Your task to perform on an android device: see tabs open on other devices in the chrome app Image 0: 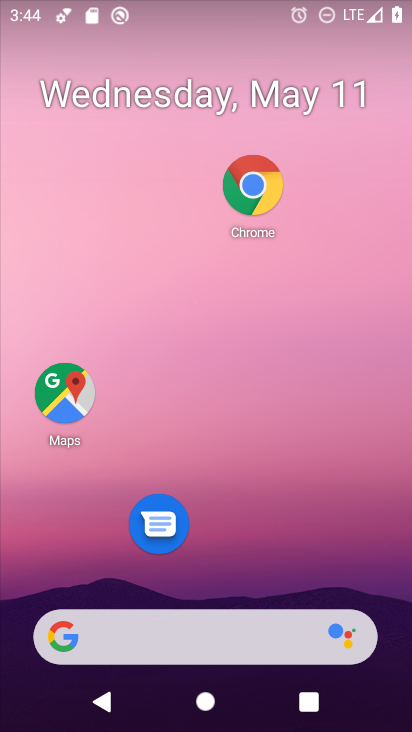
Step 0: click (261, 186)
Your task to perform on an android device: see tabs open on other devices in the chrome app Image 1: 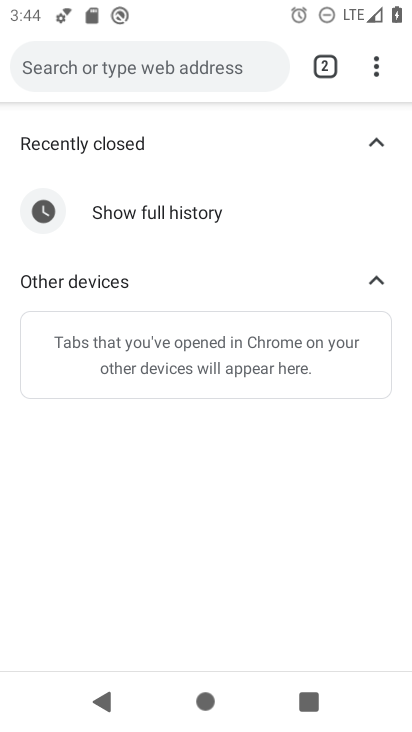
Step 1: click (381, 71)
Your task to perform on an android device: see tabs open on other devices in the chrome app Image 2: 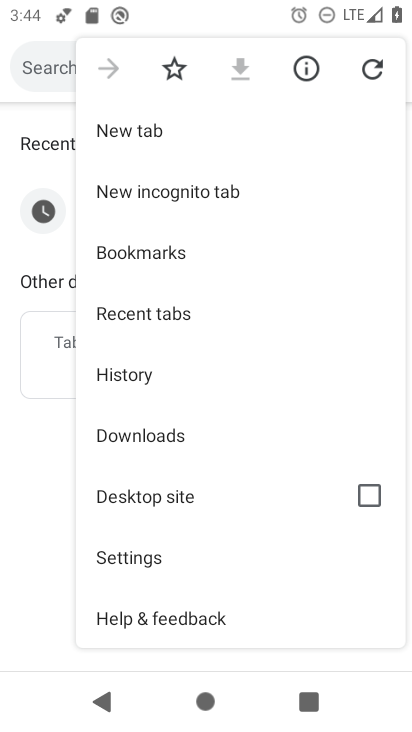
Step 2: click (178, 307)
Your task to perform on an android device: see tabs open on other devices in the chrome app Image 3: 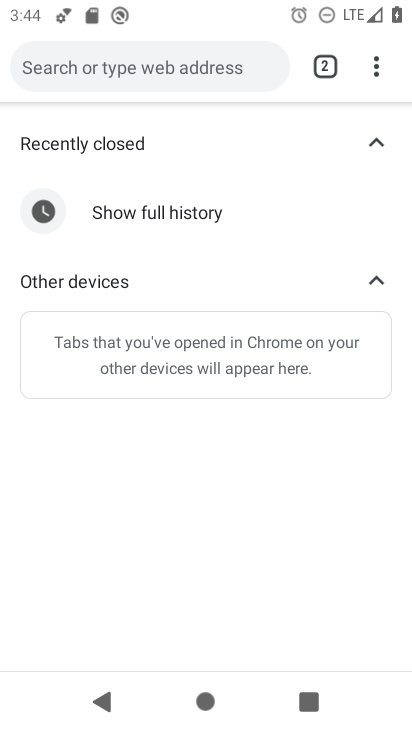
Step 3: task complete